Your task to perform on an android device: Go to wifi settings Image 0: 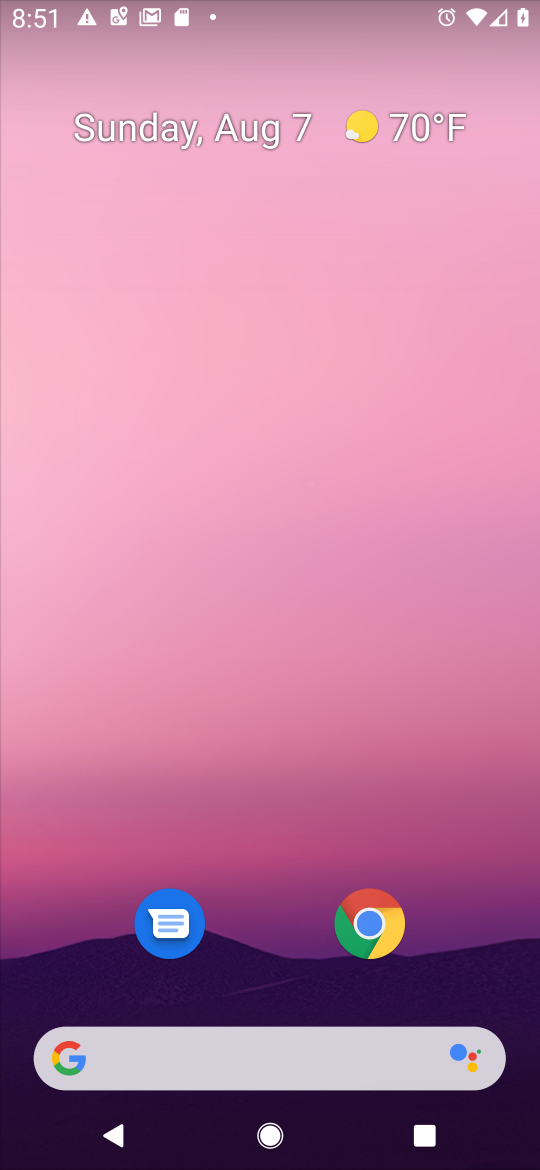
Step 0: drag from (495, 973) to (322, 75)
Your task to perform on an android device: Go to wifi settings Image 1: 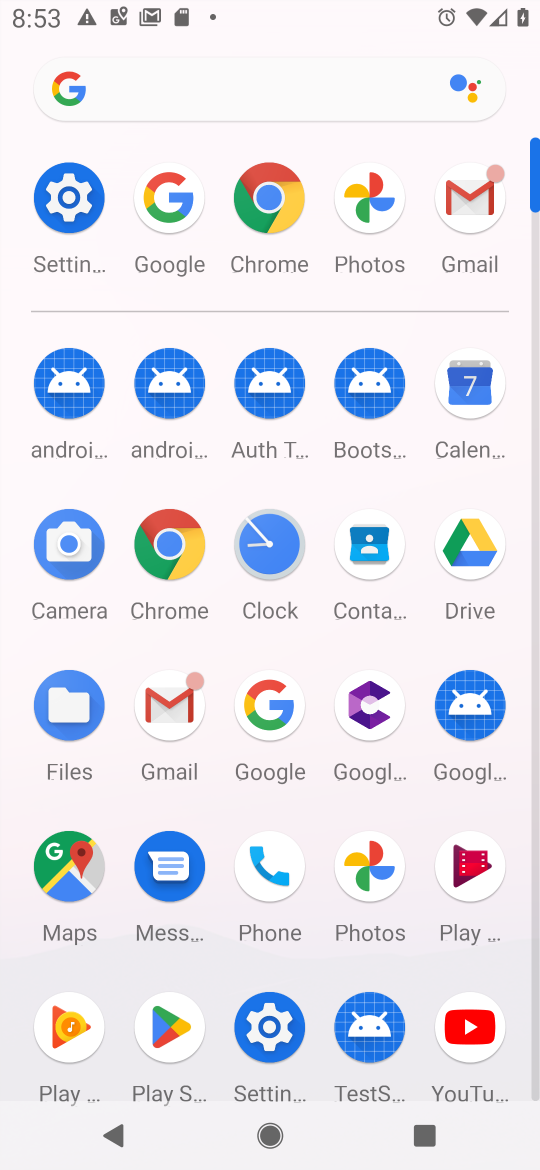
Step 1: click (231, 1020)
Your task to perform on an android device: Go to wifi settings Image 2: 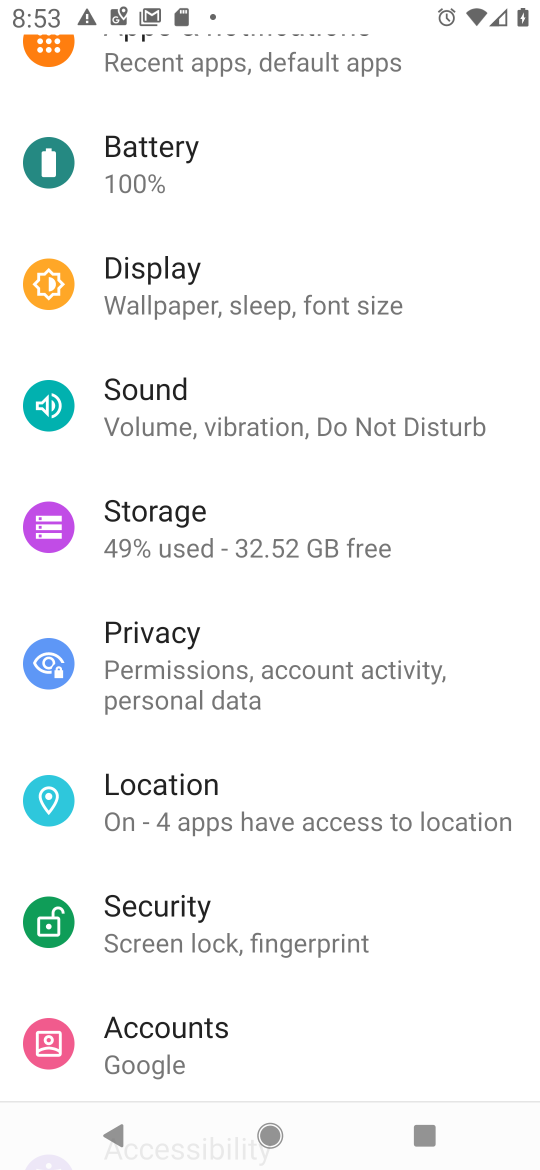
Step 2: drag from (125, 126) to (245, 1155)
Your task to perform on an android device: Go to wifi settings Image 3: 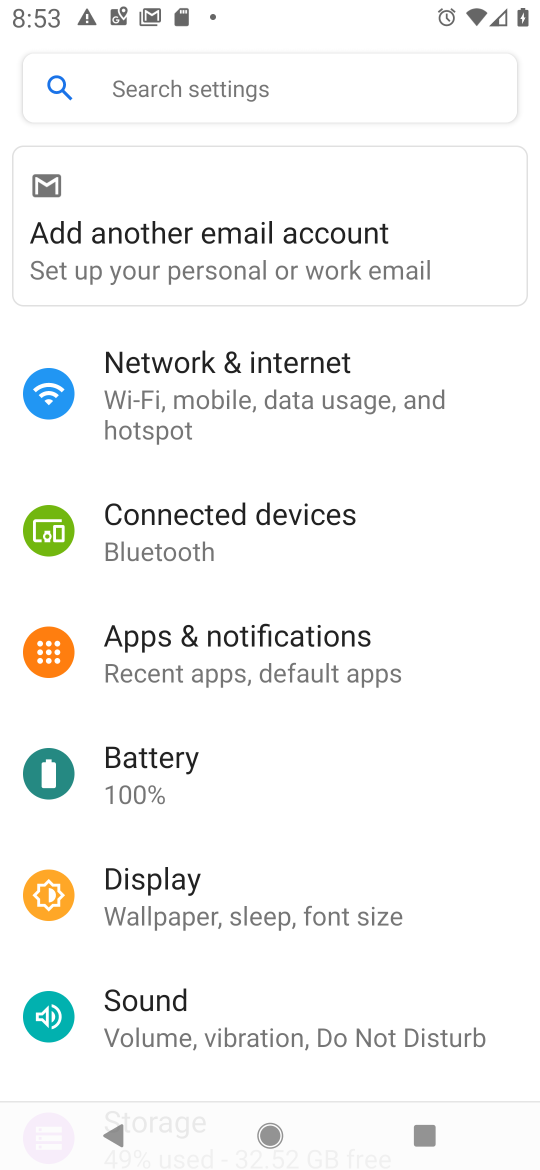
Step 3: click (161, 395)
Your task to perform on an android device: Go to wifi settings Image 4: 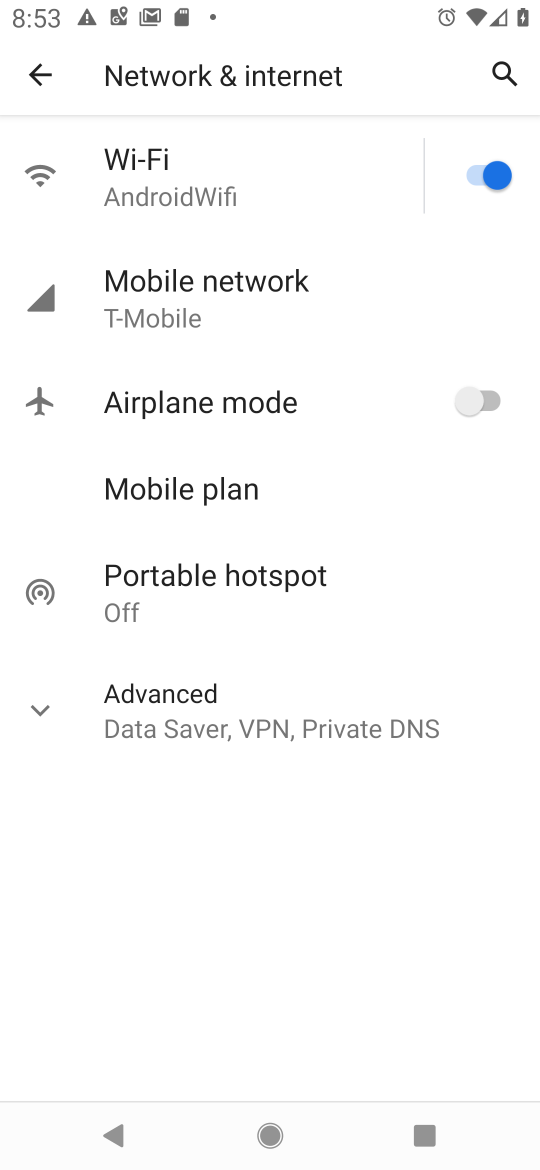
Step 4: click (129, 209)
Your task to perform on an android device: Go to wifi settings Image 5: 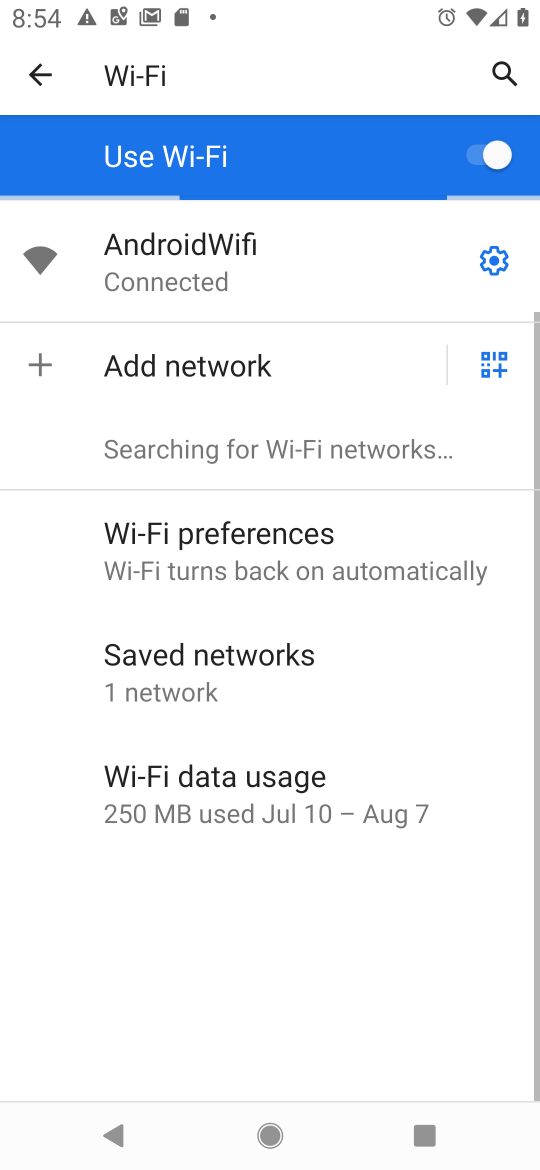
Step 5: task complete